Your task to perform on an android device: empty trash in the gmail app Image 0: 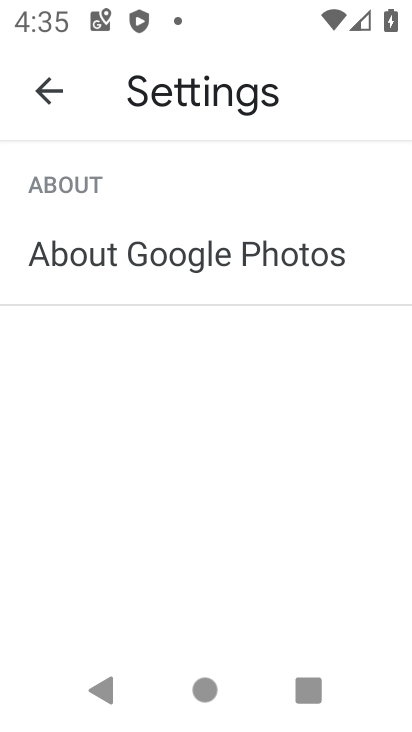
Step 0: press home button
Your task to perform on an android device: empty trash in the gmail app Image 1: 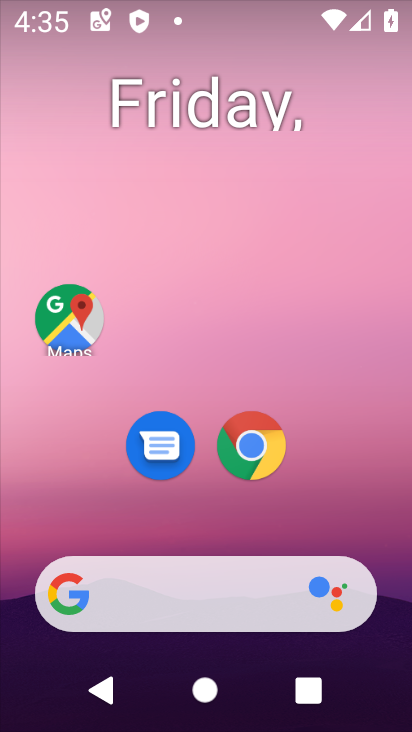
Step 1: drag from (357, 510) to (320, 7)
Your task to perform on an android device: empty trash in the gmail app Image 2: 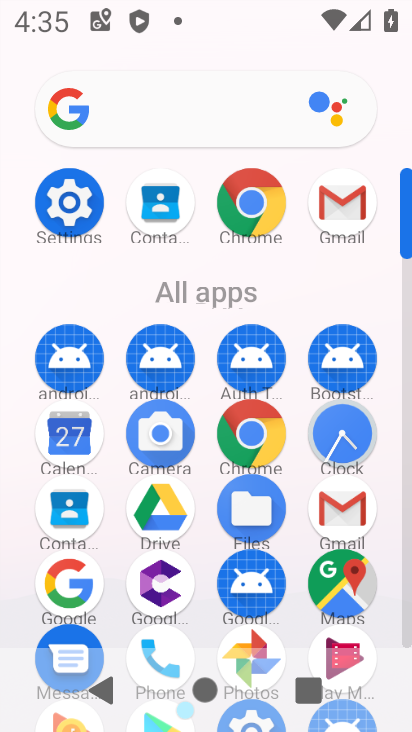
Step 2: click (330, 200)
Your task to perform on an android device: empty trash in the gmail app Image 3: 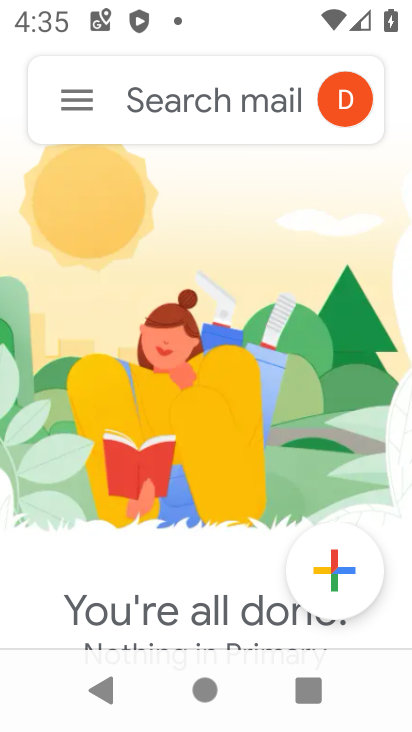
Step 3: click (74, 90)
Your task to perform on an android device: empty trash in the gmail app Image 4: 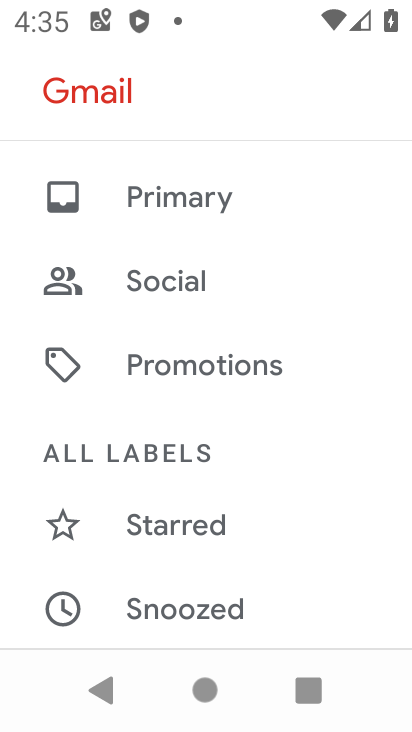
Step 4: drag from (294, 578) to (281, 70)
Your task to perform on an android device: empty trash in the gmail app Image 5: 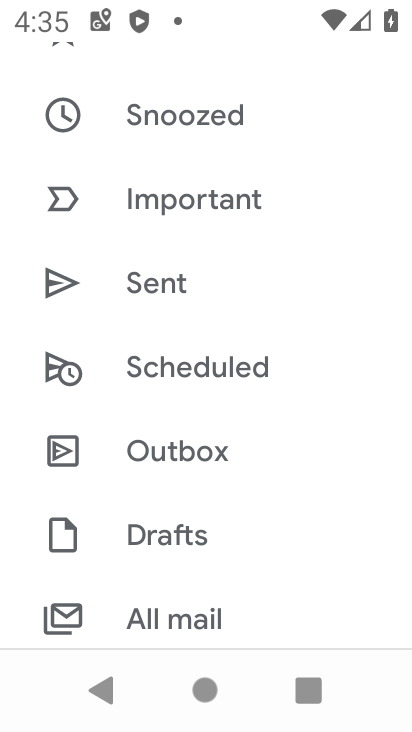
Step 5: drag from (333, 612) to (302, 135)
Your task to perform on an android device: empty trash in the gmail app Image 6: 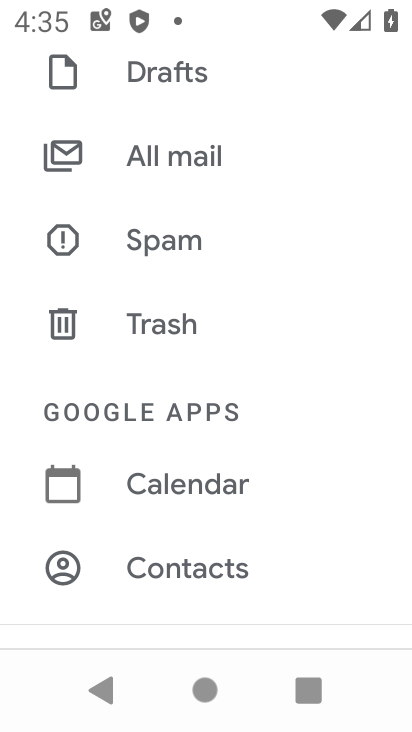
Step 6: click (152, 324)
Your task to perform on an android device: empty trash in the gmail app Image 7: 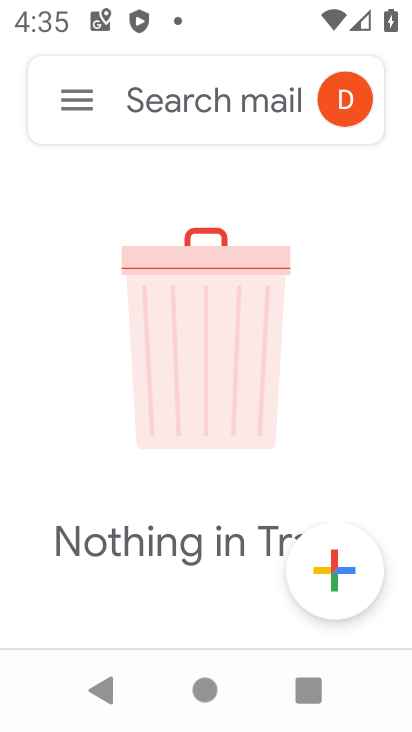
Step 7: task complete